Your task to perform on an android device: snooze an email in the gmail app Image 0: 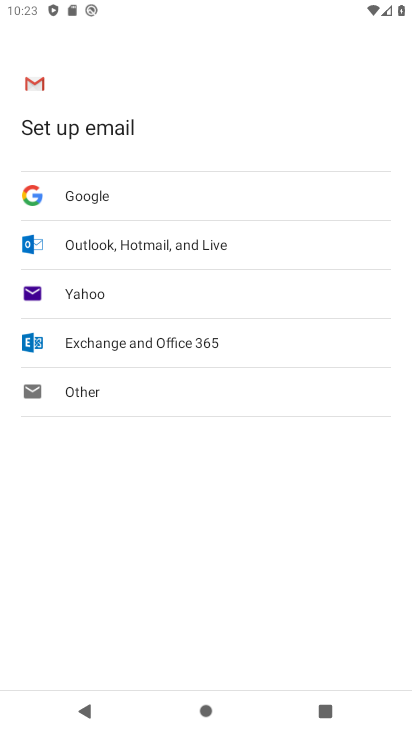
Step 0: press home button
Your task to perform on an android device: snooze an email in the gmail app Image 1: 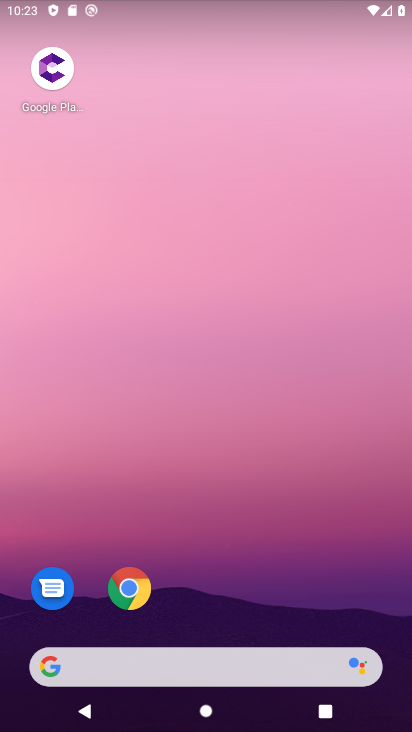
Step 1: drag from (230, 570) to (280, 11)
Your task to perform on an android device: snooze an email in the gmail app Image 2: 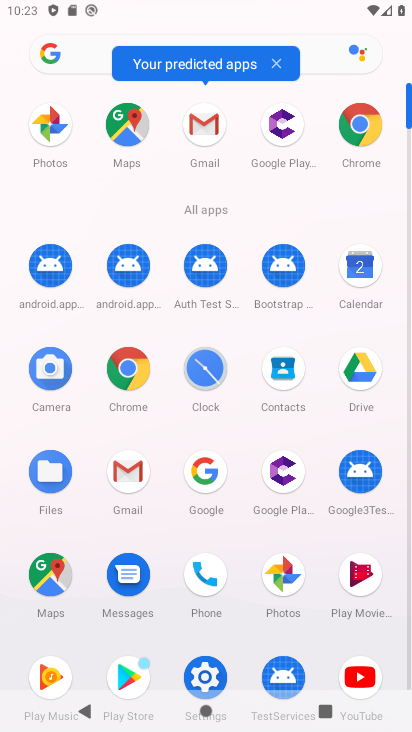
Step 2: click (134, 490)
Your task to perform on an android device: snooze an email in the gmail app Image 3: 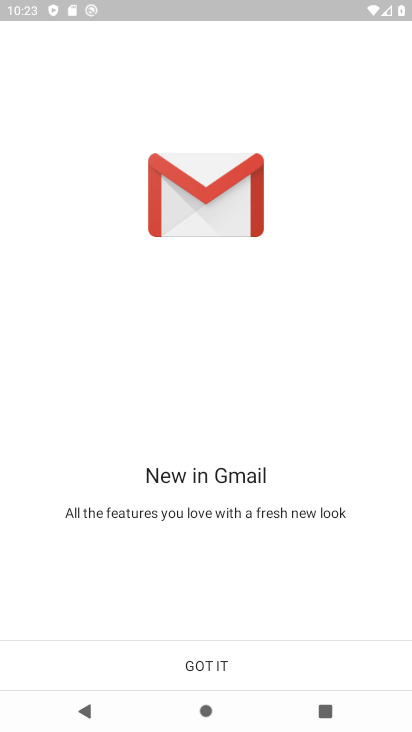
Step 3: click (233, 669)
Your task to perform on an android device: snooze an email in the gmail app Image 4: 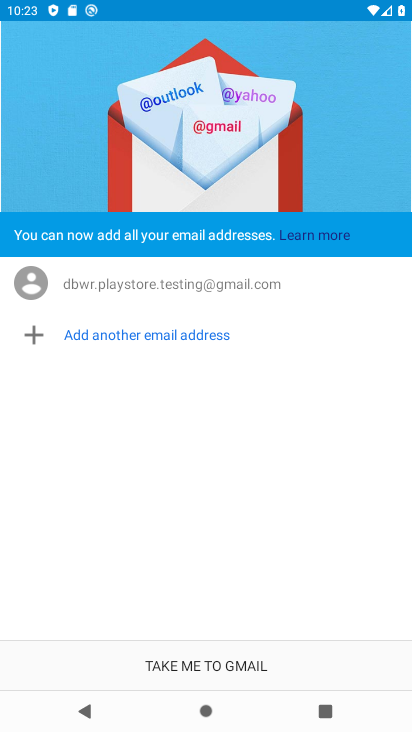
Step 4: click (233, 669)
Your task to perform on an android device: snooze an email in the gmail app Image 5: 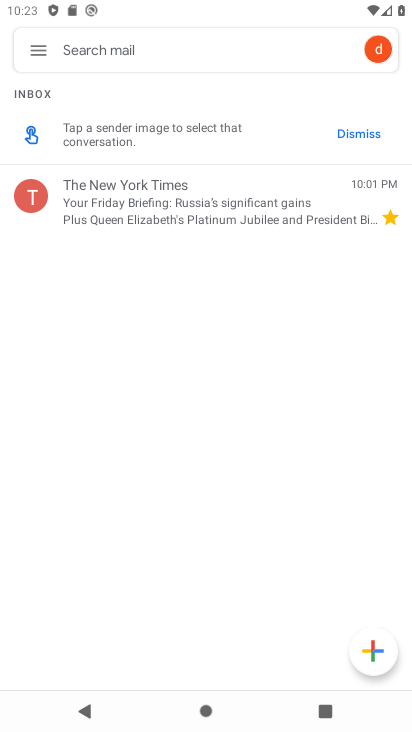
Step 5: click (38, 48)
Your task to perform on an android device: snooze an email in the gmail app Image 6: 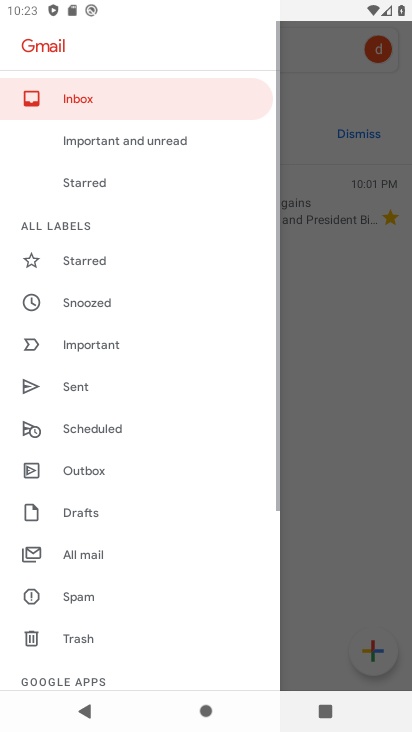
Step 6: click (354, 356)
Your task to perform on an android device: snooze an email in the gmail app Image 7: 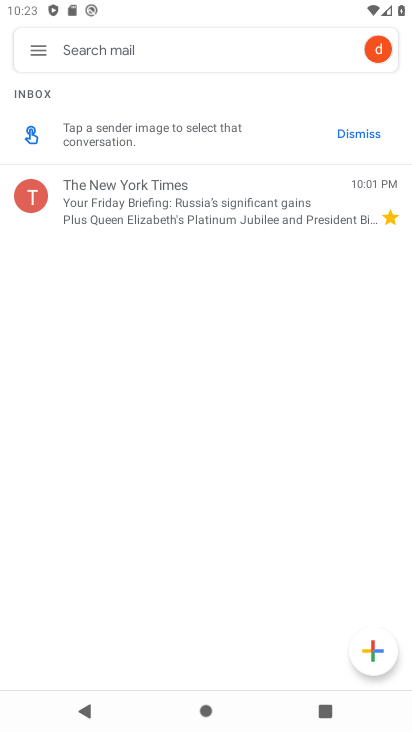
Step 7: click (26, 192)
Your task to perform on an android device: snooze an email in the gmail app Image 8: 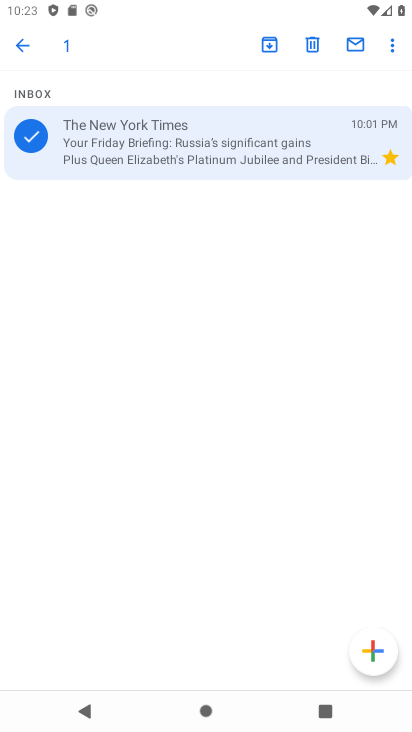
Step 8: click (394, 52)
Your task to perform on an android device: snooze an email in the gmail app Image 9: 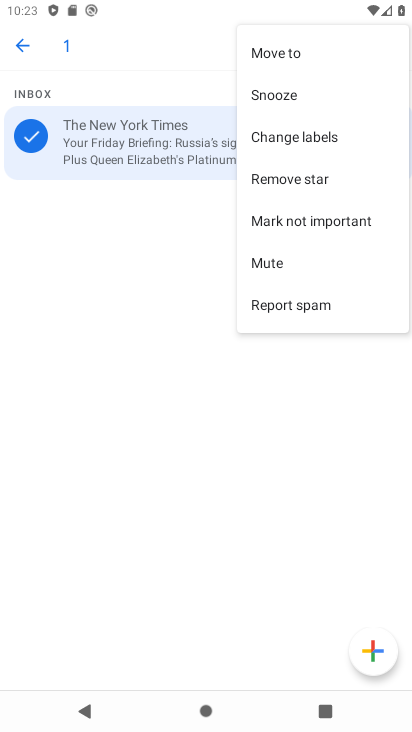
Step 9: click (270, 94)
Your task to perform on an android device: snooze an email in the gmail app Image 10: 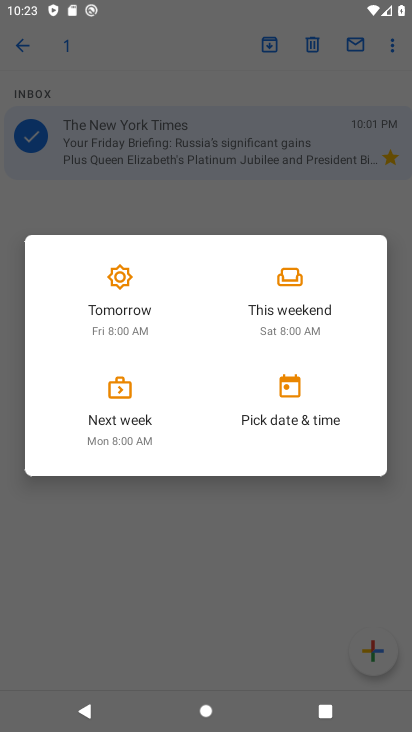
Step 10: click (128, 307)
Your task to perform on an android device: snooze an email in the gmail app Image 11: 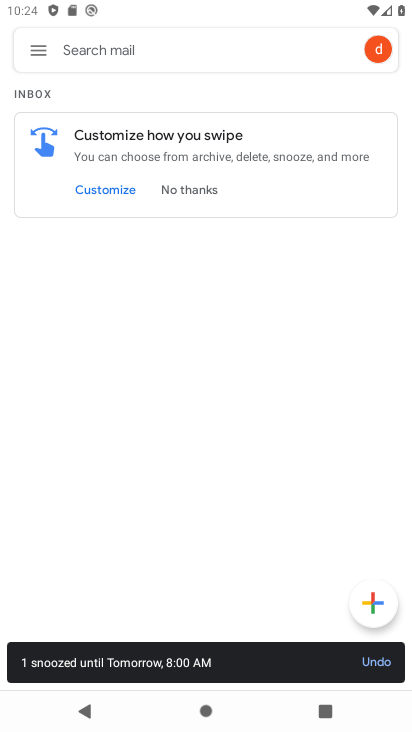
Step 11: task complete